Your task to perform on an android device: Show me productivity apps on the Play Store Image 0: 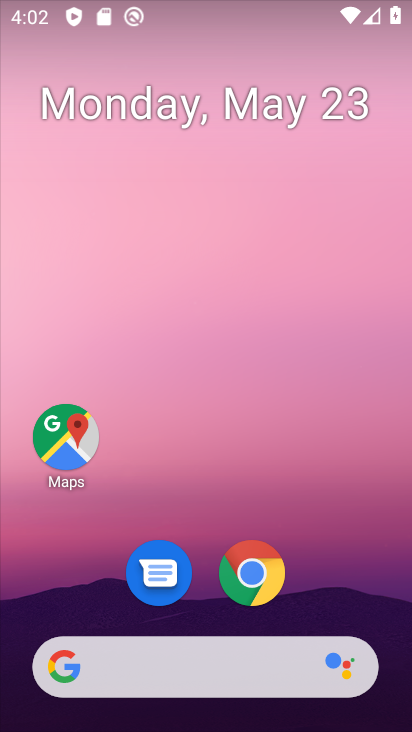
Step 0: drag from (221, 726) to (226, 50)
Your task to perform on an android device: Show me productivity apps on the Play Store Image 1: 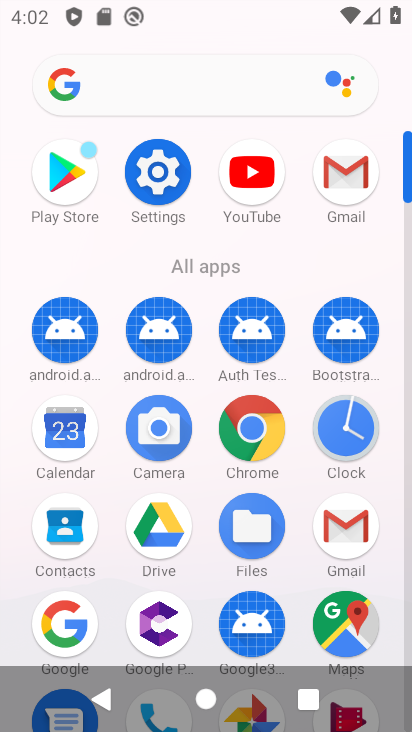
Step 1: drag from (190, 629) to (215, 195)
Your task to perform on an android device: Show me productivity apps on the Play Store Image 2: 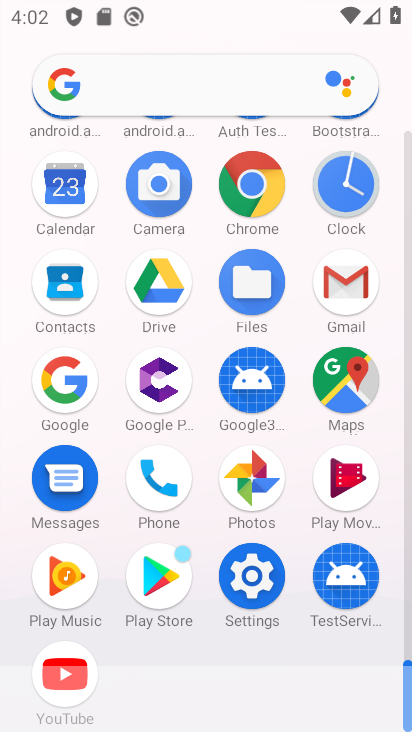
Step 2: click (155, 580)
Your task to perform on an android device: Show me productivity apps on the Play Store Image 3: 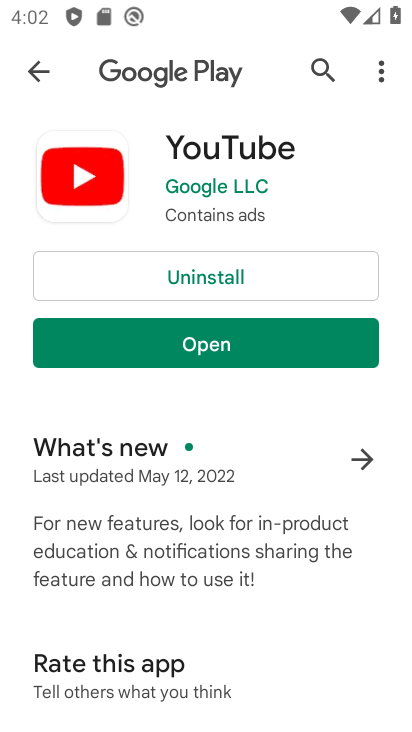
Step 3: click (35, 63)
Your task to perform on an android device: Show me productivity apps on the Play Store Image 4: 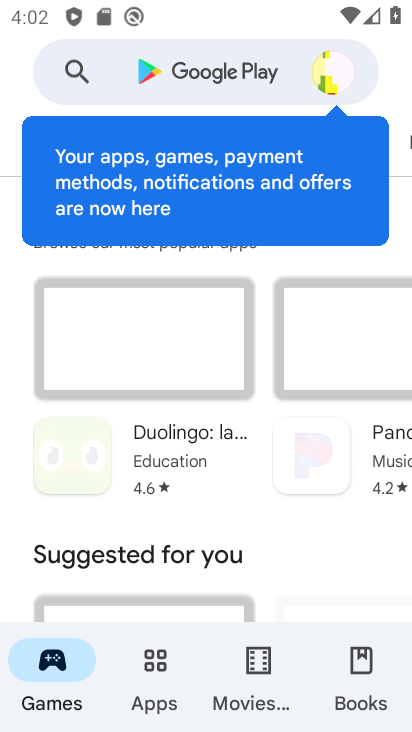
Step 4: click (154, 678)
Your task to perform on an android device: Show me productivity apps on the Play Store Image 5: 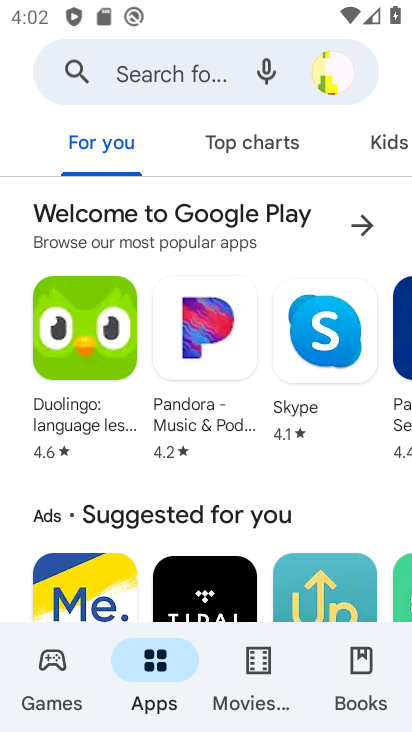
Step 5: drag from (347, 139) to (107, 145)
Your task to perform on an android device: Show me productivity apps on the Play Store Image 6: 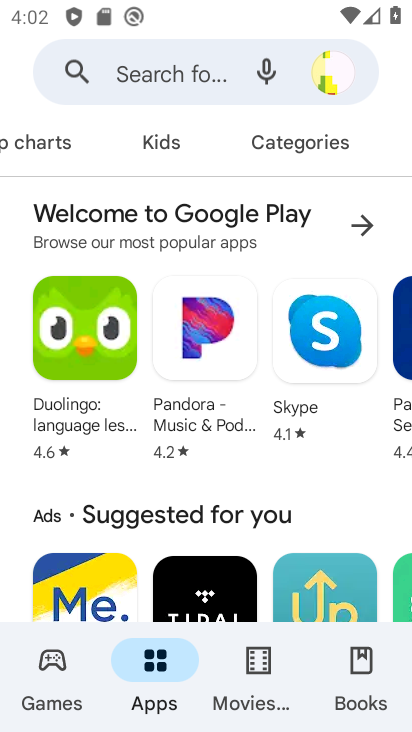
Step 6: drag from (305, 150) to (216, 147)
Your task to perform on an android device: Show me productivity apps on the Play Store Image 7: 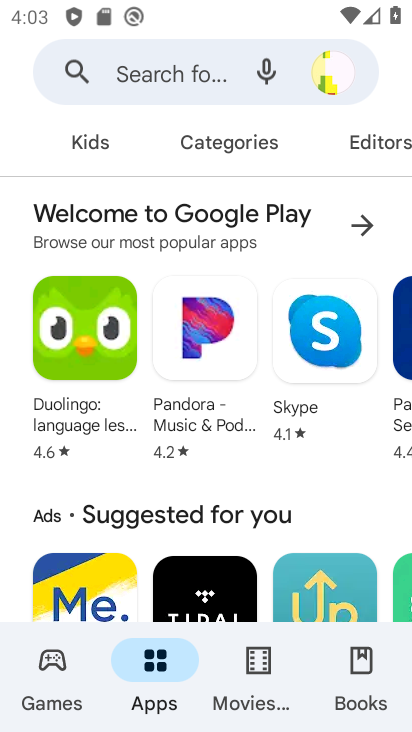
Step 7: click (227, 135)
Your task to perform on an android device: Show me productivity apps on the Play Store Image 8: 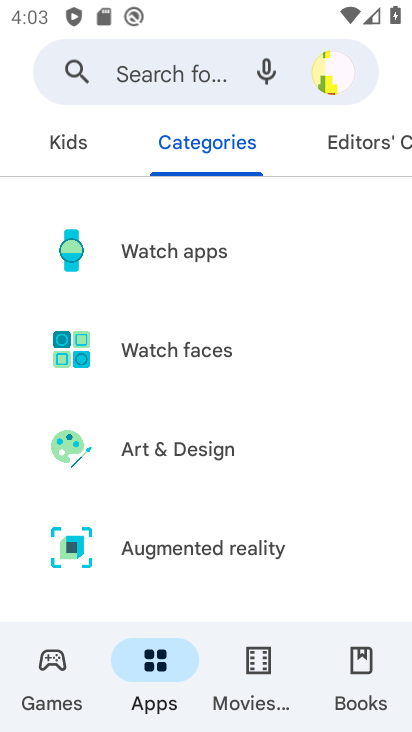
Step 8: drag from (185, 574) to (186, 245)
Your task to perform on an android device: Show me productivity apps on the Play Store Image 9: 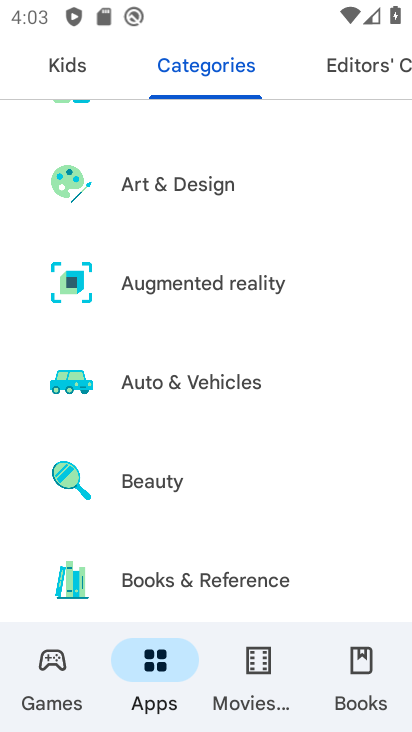
Step 9: drag from (180, 598) to (204, 200)
Your task to perform on an android device: Show me productivity apps on the Play Store Image 10: 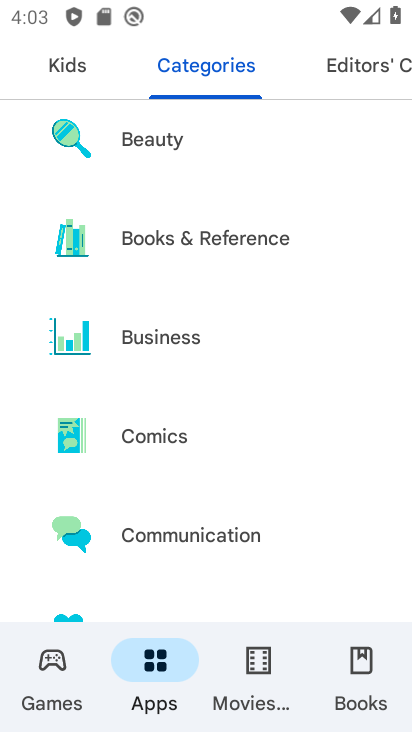
Step 10: drag from (195, 558) to (206, 249)
Your task to perform on an android device: Show me productivity apps on the Play Store Image 11: 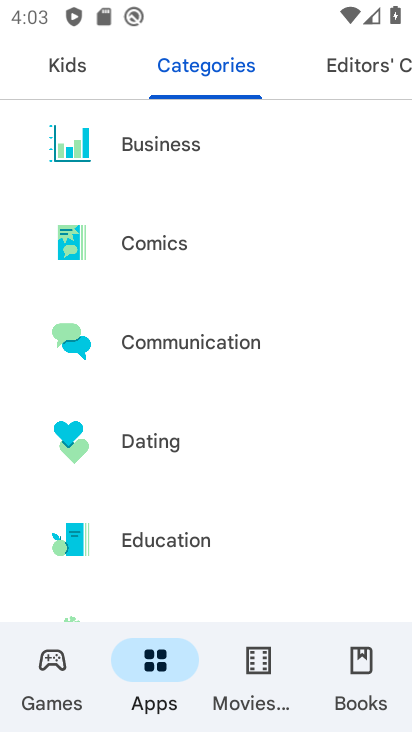
Step 11: drag from (183, 585) to (213, 155)
Your task to perform on an android device: Show me productivity apps on the Play Store Image 12: 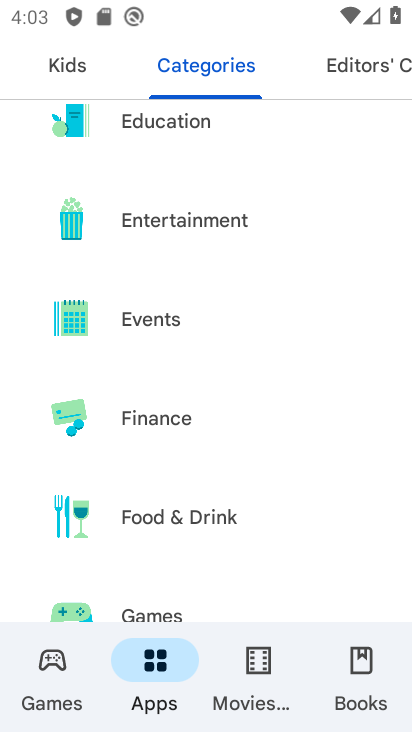
Step 12: drag from (182, 581) to (204, 269)
Your task to perform on an android device: Show me productivity apps on the Play Store Image 13: 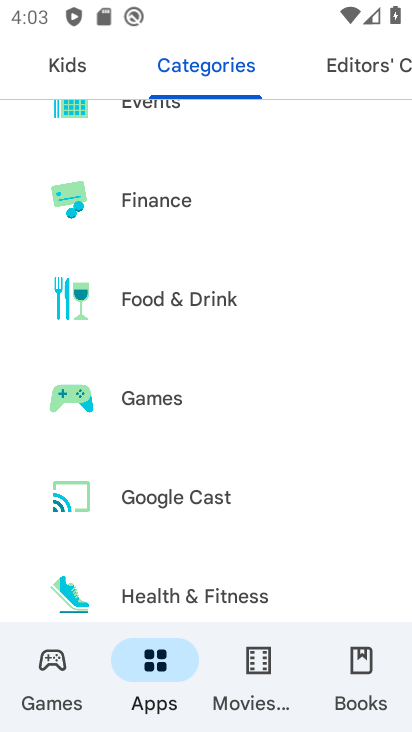
Step 13: drag from (174, 567) to (185, 205)
Your task to perform on an android device: Show me productivity apps on the Play Store Image 14: 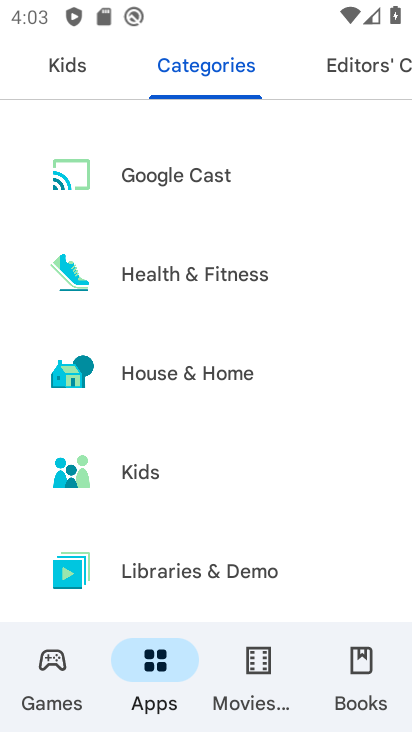
Step 14: drag from (173, 600) to (197, 88)
Your task to perform on an android device: Show me productivity apps on the Play Store Image 15: 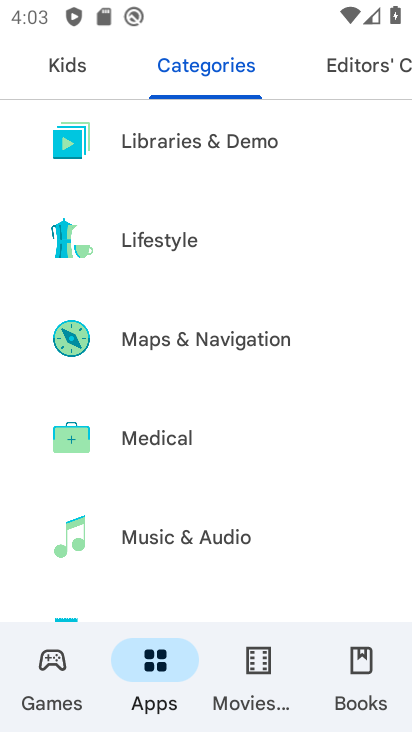
Step 15: drag from (189, 536) to (192, 174)
Your task to perform on an android device: Show me productivity apps on the Play Store Image 16: 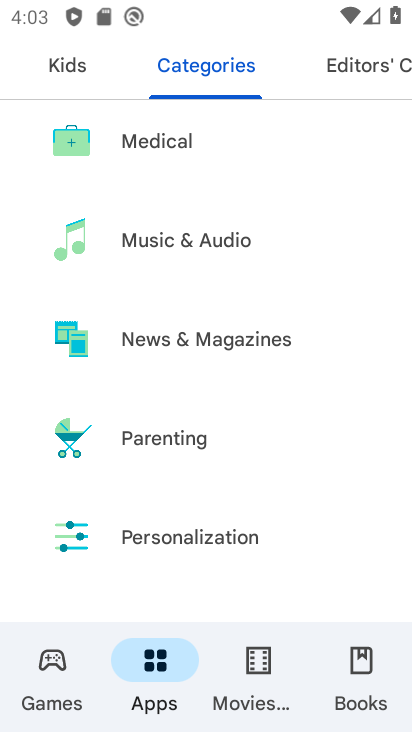
Step 16: drag from (187, 545) to (213, 145)
Your task to perform on an android device: Show me productivity apps on the Play Store Image 17: 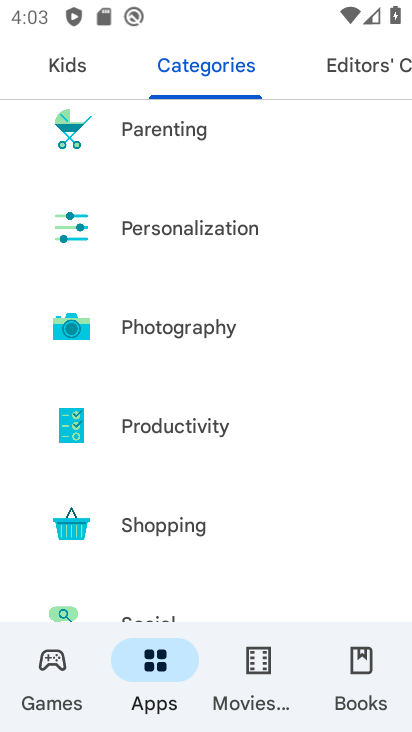
Step 17: drag from (177, 559) to (214, 146)
Your task to perform on an android device: Show me productivity apps on the Play Store Image 18: 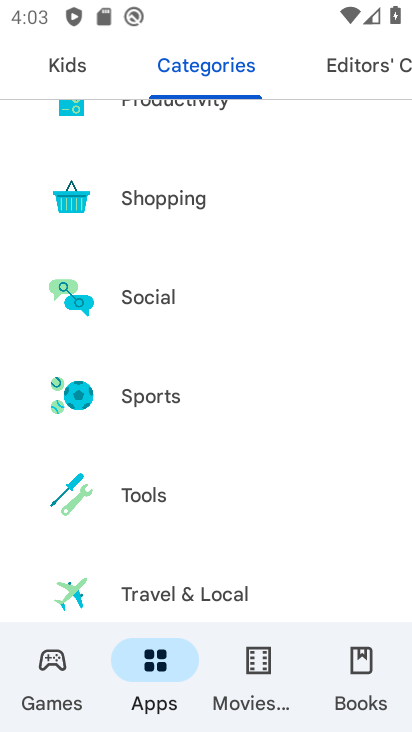
Step 18: drag from (150, 579) to (176, 177)
Your task to perform on an android device: Show me productivity apps on the Play Store Image 19: 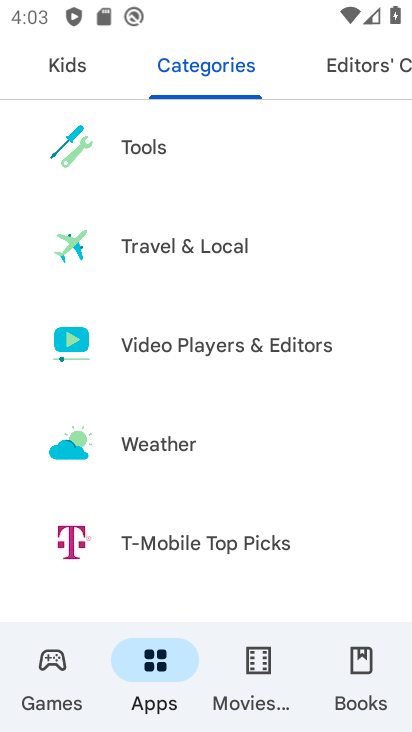
Step 19: drag from (205, 569) to (211, 264)
Your task to perform on an android device: Show me productivity apps on the Play Store Image 20: 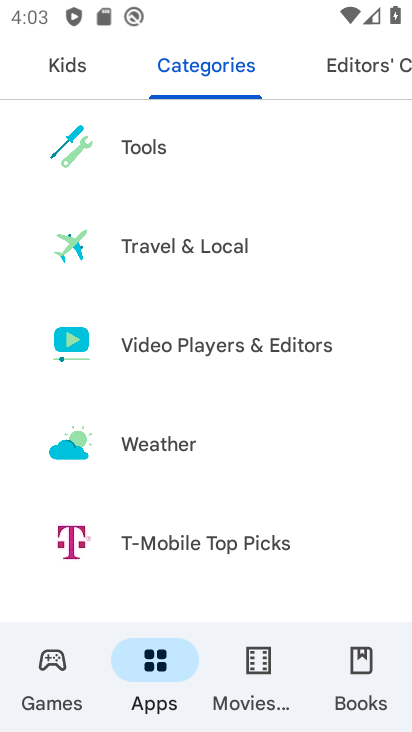
Step 20: drag from (212, 587) to (223, 179)
Your task to perform on an android device: Show me productivity apps on the Play Store Image 21: 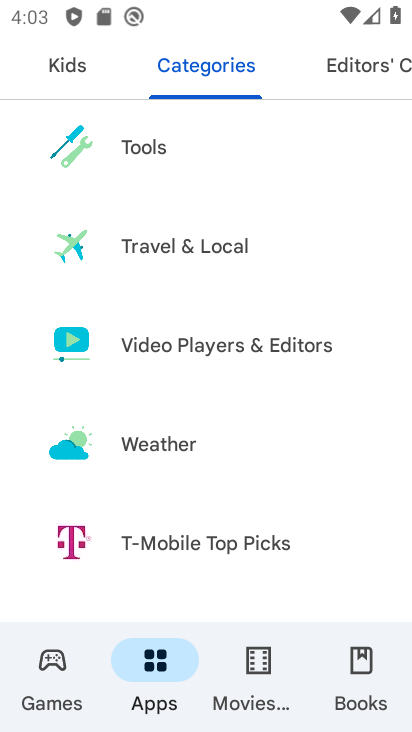
Step 21: drag from (173, 564) to (185, 167)
Your task to perform on an android device: Show me productivity apps on the Play Store Image 22: 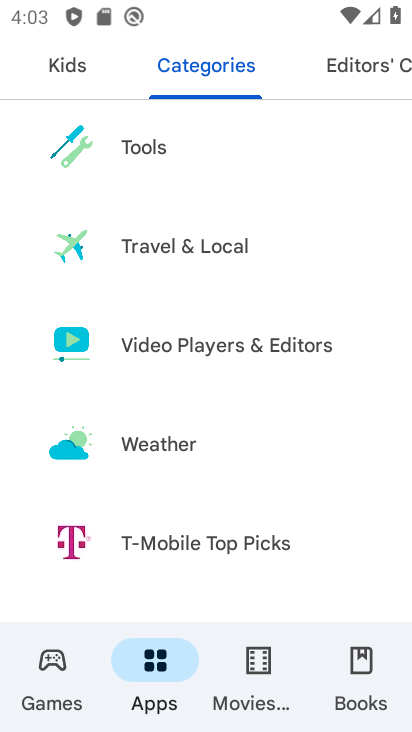
Step 22: drag from (221, 188) to (224, 541)
Your task to perform on an android device: Show me productivity apps on the Play Store Image 23: 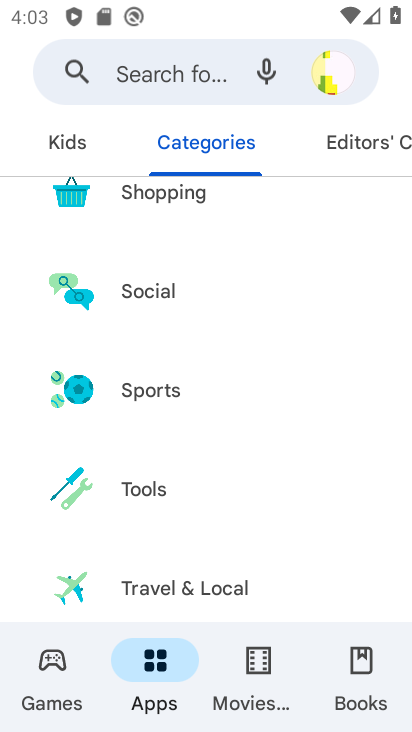
Step 23: drag from (222, 244) to (250, 375)
Your task to perform on an android device: Show me productivity apps on the Play Store Image 24: 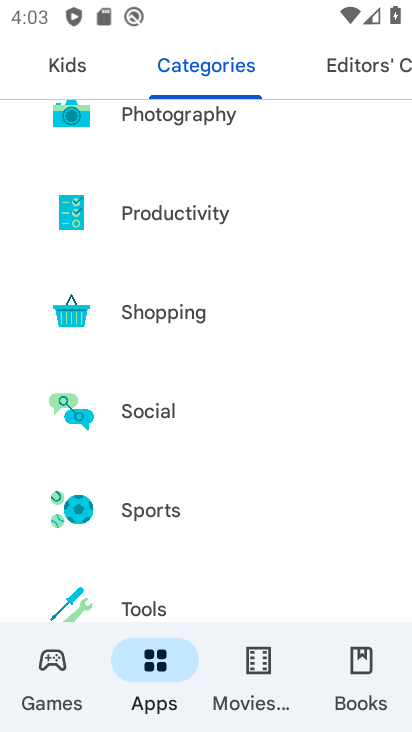
Step 24: drag from (221, 301) to (224, 453)
Your task to perform on an android device: Show me productivity apps on the Play Store Image 25: 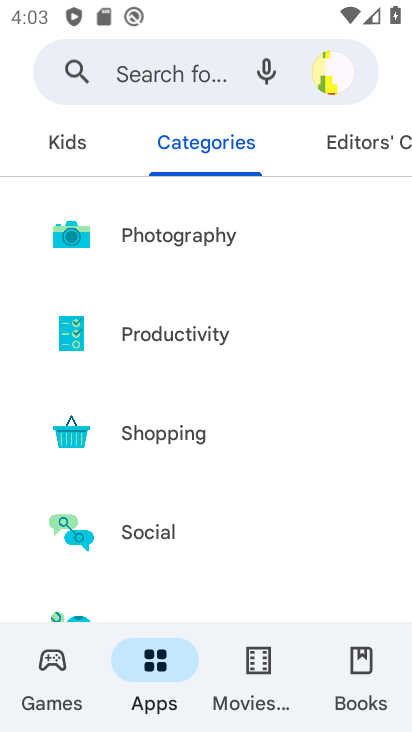
Step 25: click (173, 331)
Your task to perform on an android device: Show me productivity apps on the Play Store Image 26: 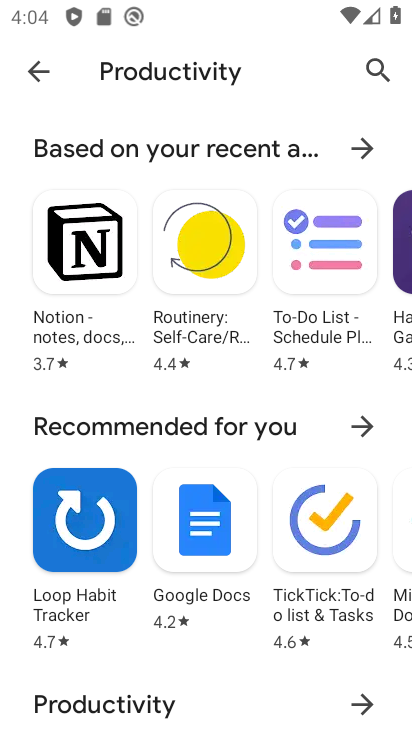
Step 26: task complete